Your task to perform on an android device: Open Chrome and go to the settings page Image 0: 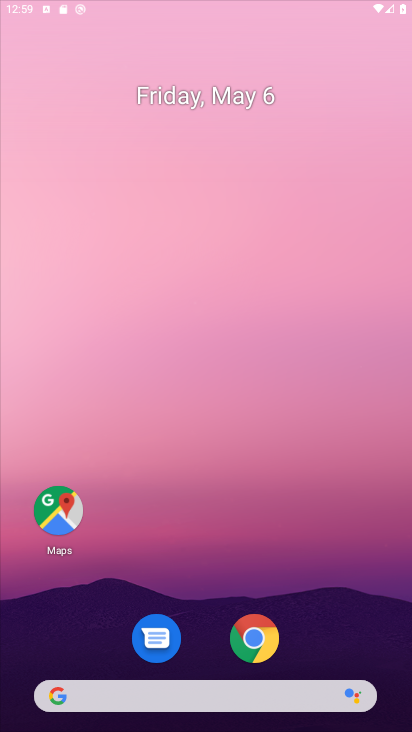
Step 0: click (317, 3)
Your task to perform on an android device: Open Chrome and go to the settings page Image 1: 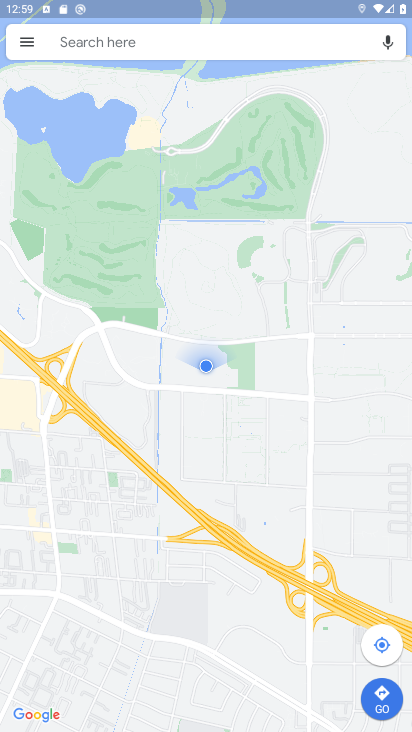
Step 1: press home button
Your task to perform on an android device: Open Chrome and go to the settings page Image 2: 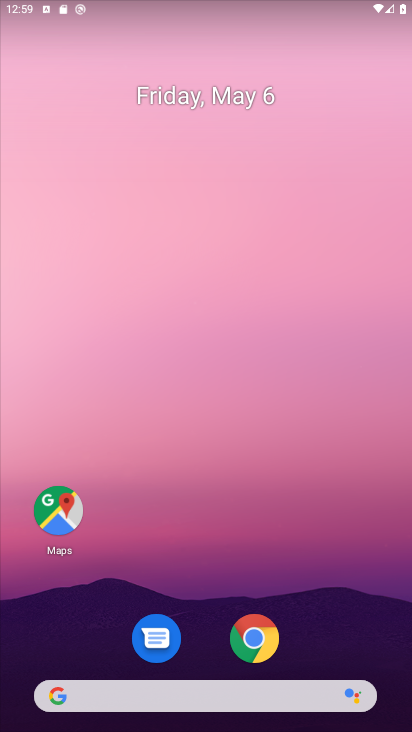
Step 2: click (250, 637)
Your task to perform on an android device: Open Chrome and go to the settings page Image 3: 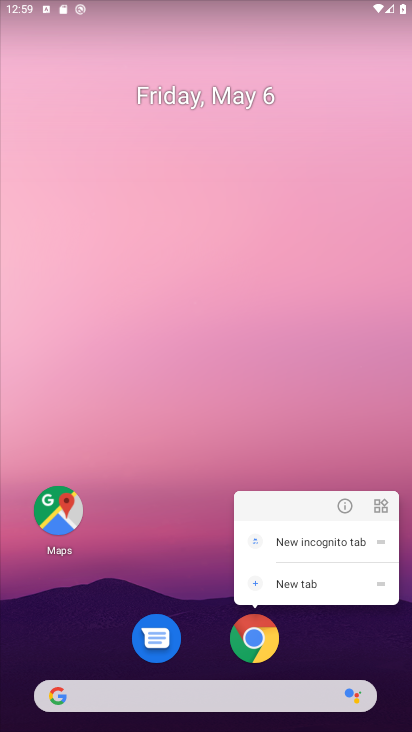
Step 3: drag from (314, 650) to (270, 42)
Your task to perform on an android device: Open Chrome and go to the settings page Image 4: 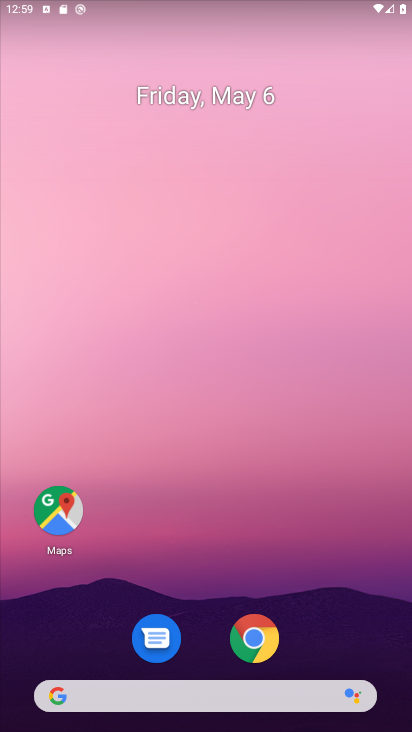
Step 4: drag from (292, 665) to (244, 2)
Your task to perform on an android device: Open Chrome and go to the settings page Image 5: 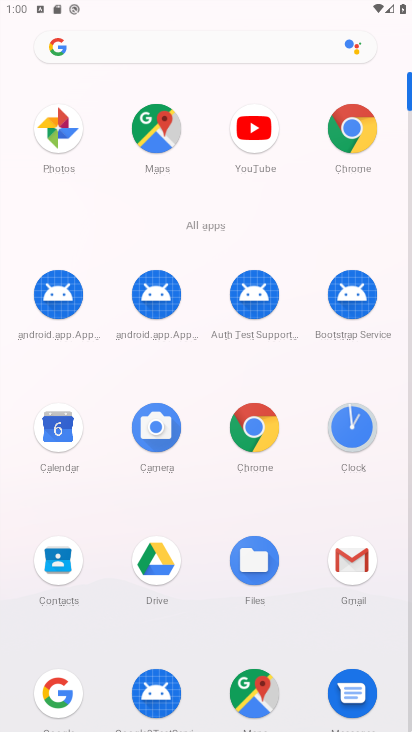
Step 5: click (256, 425)
Your task to perform on an android device: Open Chrome and go to the settings page Image 6: 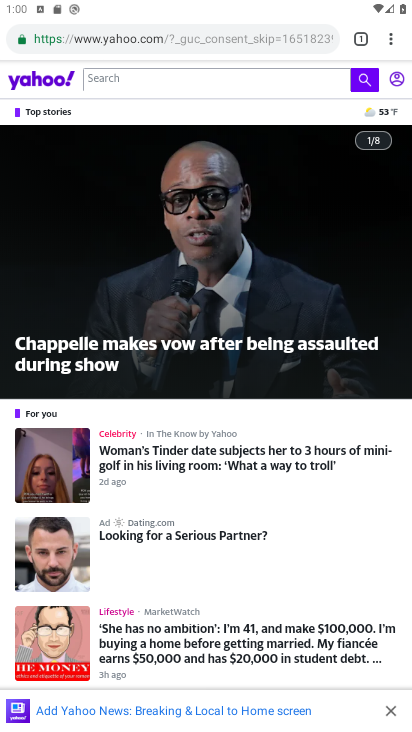
Step 6: task complete